Your task to perform on an android device: Open Yahoo.com Image 0: 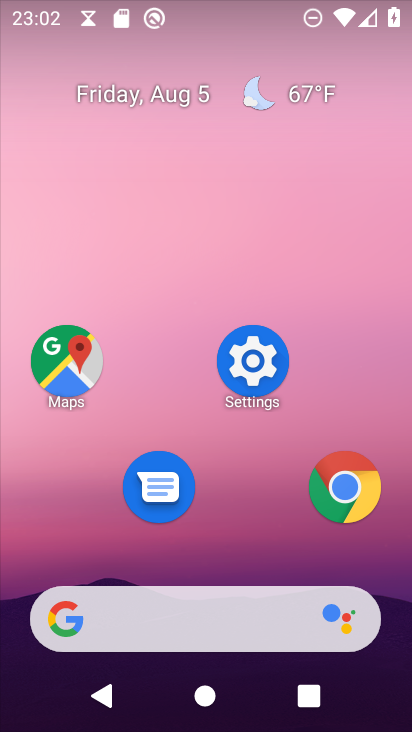
Step 0: click (339, 499)
Your task to perform on an android device: Open Yahoo.com Image 1: 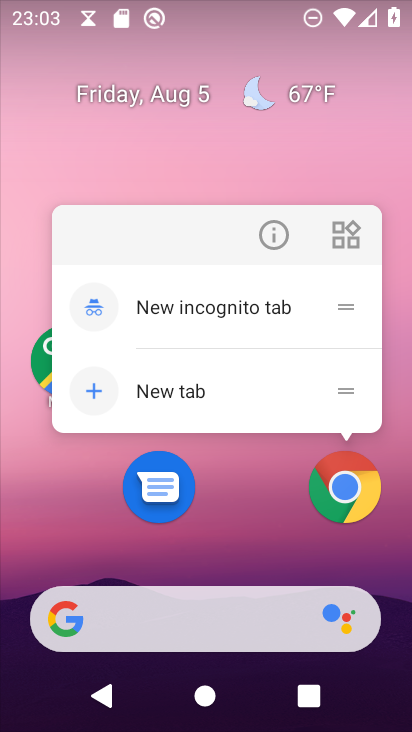
Step 1: click (344, 494)
Your task to perform on an android device: Open Yahoo.com Image 2: 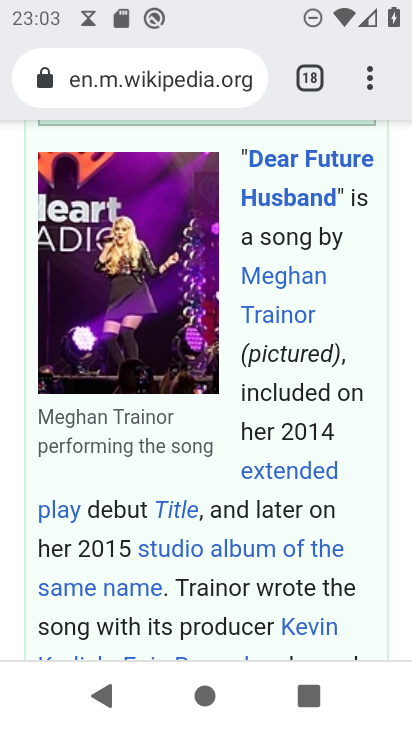
Step 2: drag from (369, 80) to (218, 164)
Your task to perform on an android device: Open Yahoo.com Image 3: 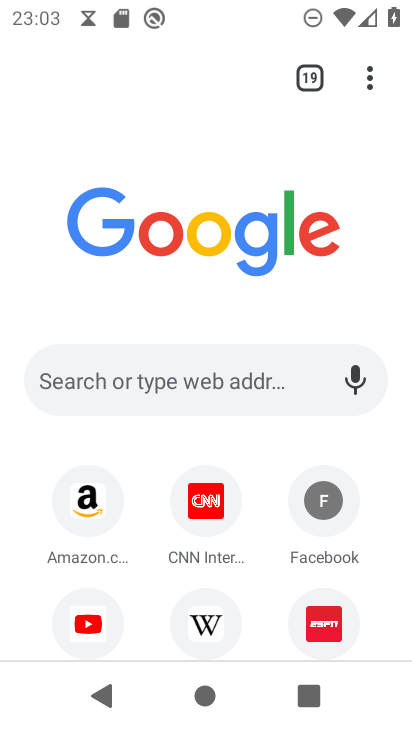
Step 3: drag from (251, 454) to (343, 110)
Your task to perform on an android device: Open Yahoo.com Image 4: 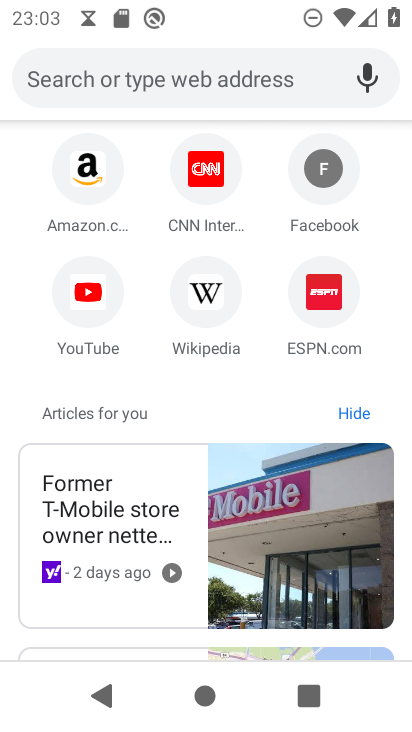
Step 4: drag from (276, 240) to (245, 637)
Your task to perform on an android device: Open Yahoo.com Image 5: 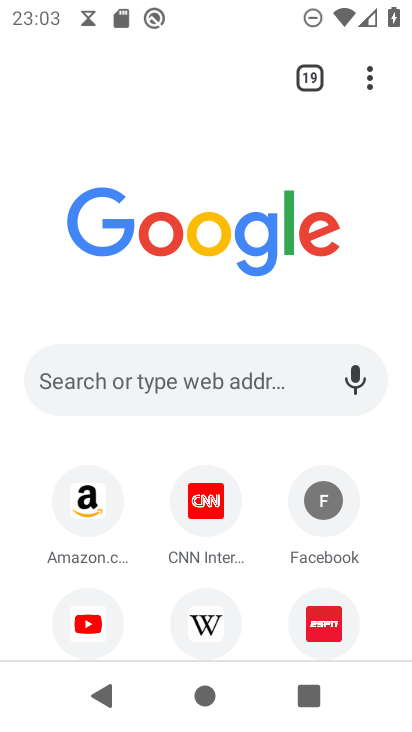
Step 5: click (149, 365)
Your task to perform on an android device: Open Yahoo.com Image 6: 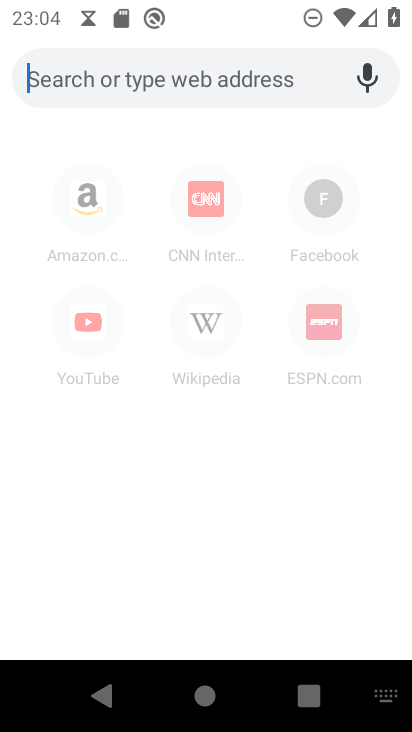
Step 6: type "Yahoo.com"
Your task to perform on an android device: Open Yahoo.com Image 7: 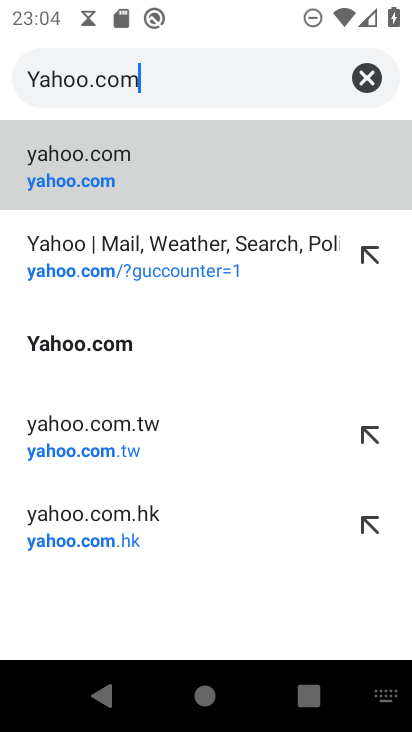
Step 7: click (115, 172)
Your task to perform on an android device: Open Yahoo.com Image 8: 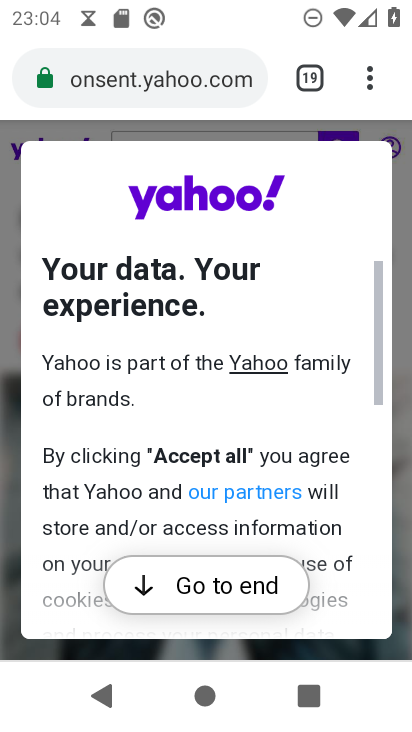
Step 8: click (222, 579)
Your task to perform on an android device: Open Yahoo.com Image 9: 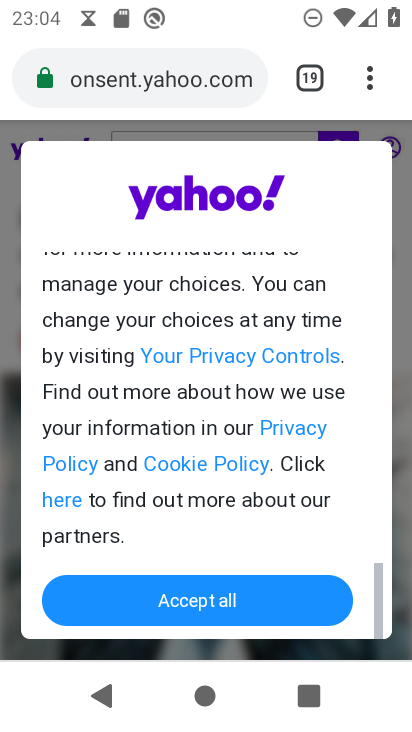
Step 9: click (213, 603)
Your task to perform on an android device: Open Yahoo.com Image 10: 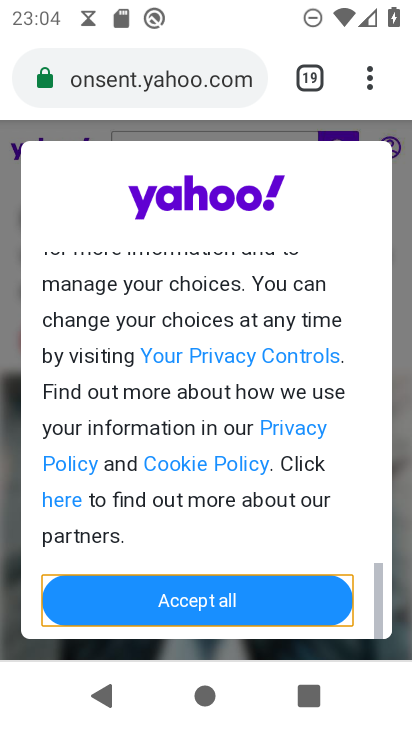
Step 10: click (198, 602)
Your task to perform on an android device: Open Yahoo.com Image 11: 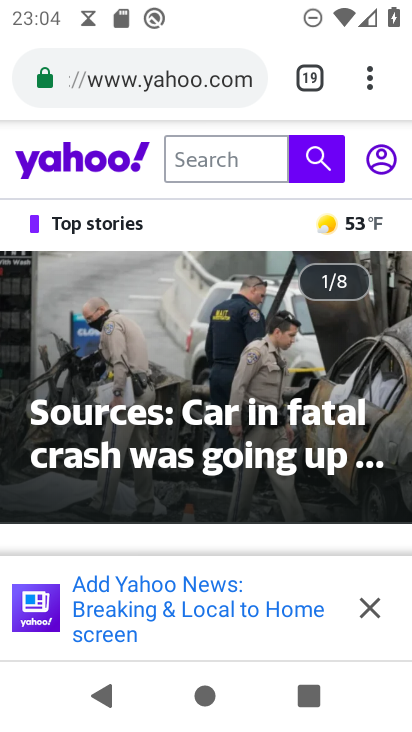
Step 11: task complete